Your task to perform on an android device: Open Google Chrome Image 0: 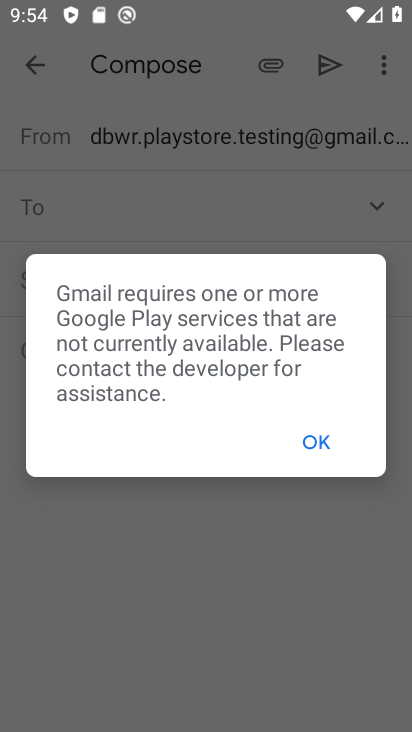
Step 0: click (317, 437)
Your task to perform on an android device: Open Google Chrome Image 1: 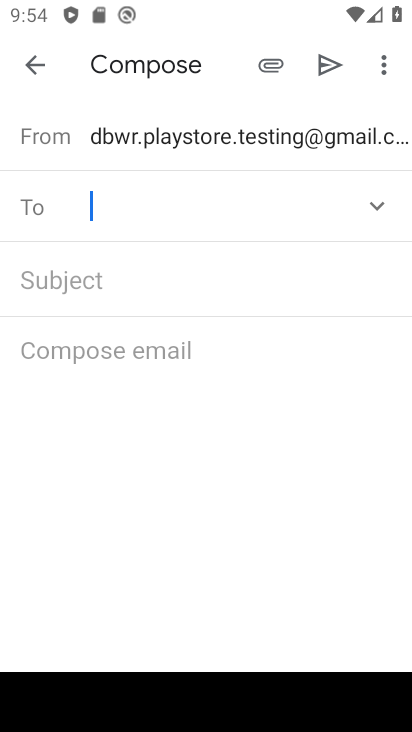
Step 1: press home button
Your task to perform on an android device: Open Google Chrome Image 2: 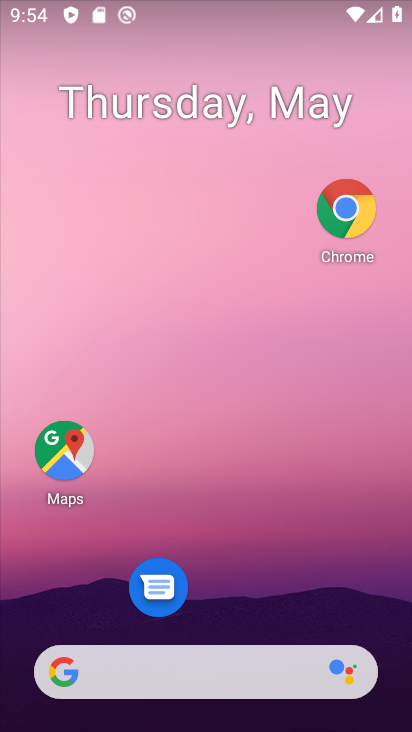
Step 2: click (358, 203)
Your task to perform on an android device: Open Google Chrome Image 3: 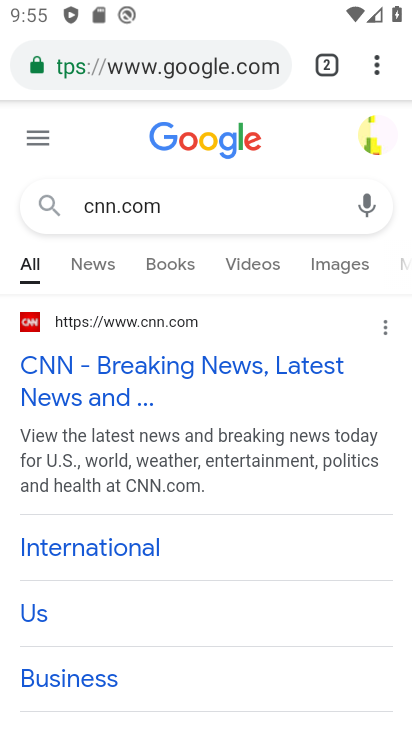
Step 3: task complete